Your task to perform on an android device: Go to CNN.com Image 0: 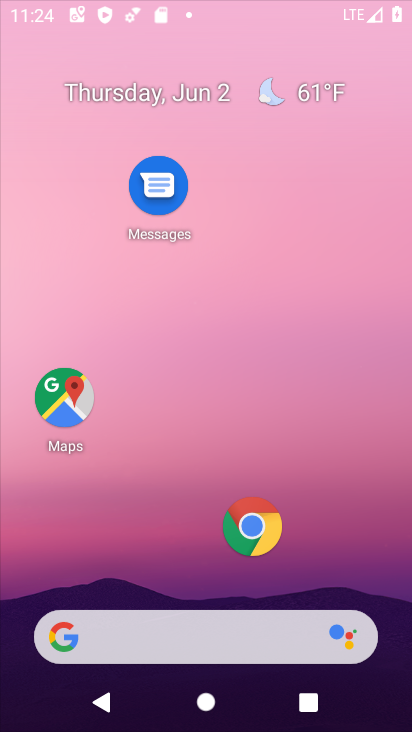
Step 0: press home button
Your task to perform on an android device: Go to CNN.com Image 1: 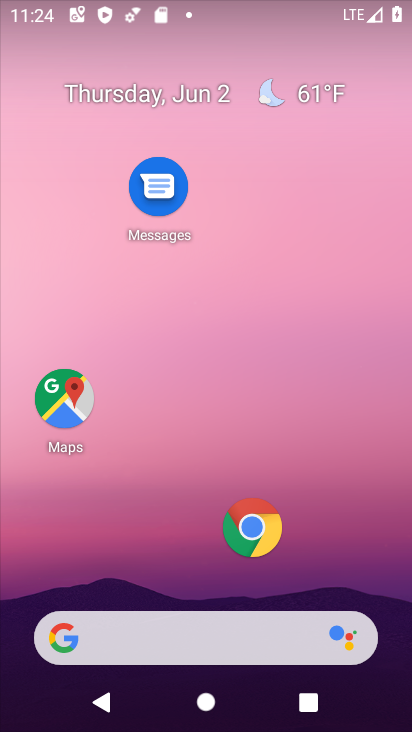
Step 1: click (248, 517)
Your task to perform on an android device: Go to CNN.com Image 2: 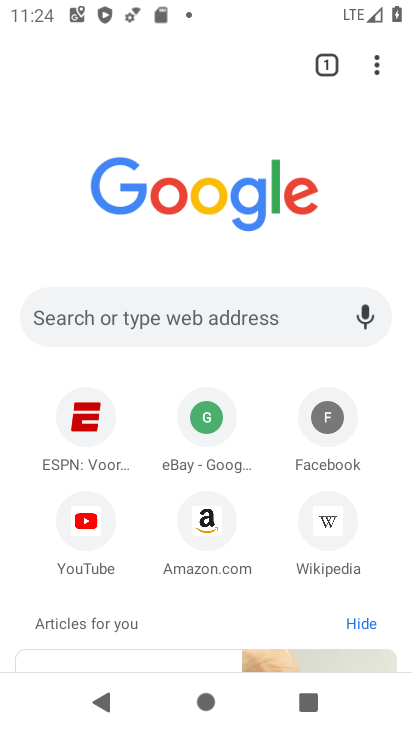
Step 2: click (167, 308)
Your task to perform on an android device: Go to CNN.com Image 3: 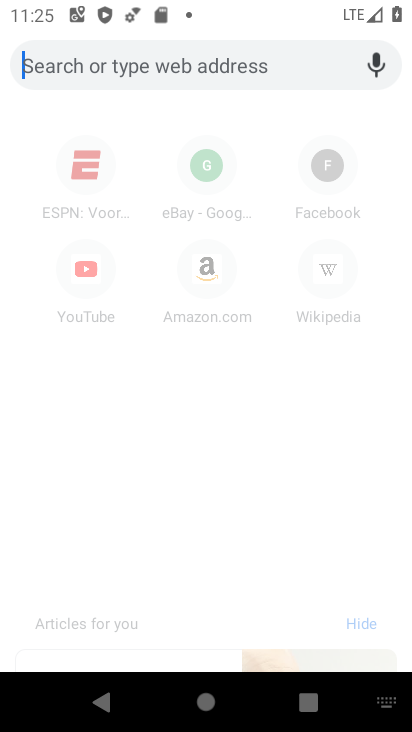
Step 3: type "cnn.com"
Your task to perform on an android device: Go to CNN.com Image 4: 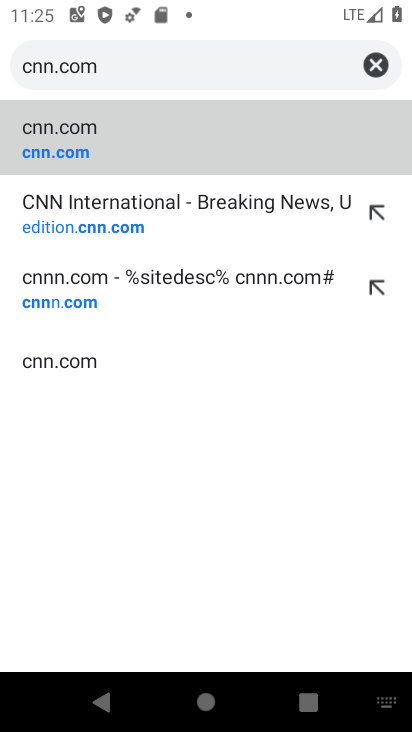
Step 4: click (170, 215)
Your task to perform on an android device: Go to CNN.com Image 5: 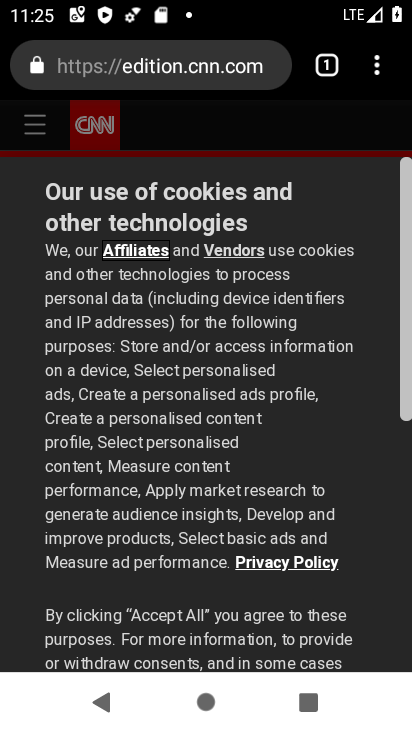
Step 5: drag from (203, 626) to (223, 173)
Your task to perform on an android device: Go to CNN.com Image 6: 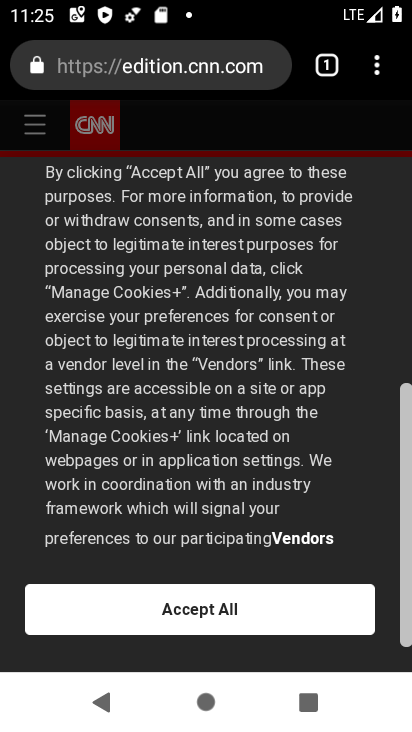
Step 6: click (208, 607)
Your task to perform on an android device: Go to CNN.com Image 7: 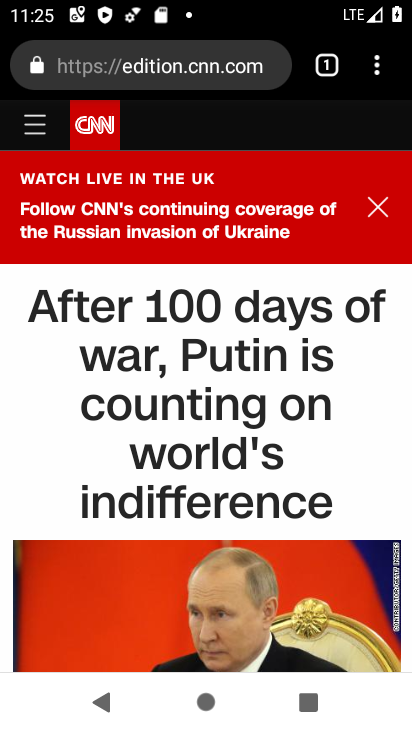
Step 7: task complete